Your task to perform on an android device: turn on translation in the chrome app Image 0: 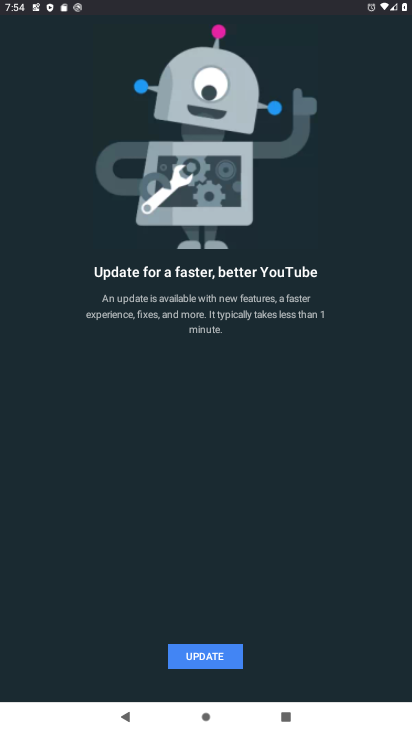
Step 0: press back button
Your task to perform on an android device: turn on translation in the chrome app Image 1: 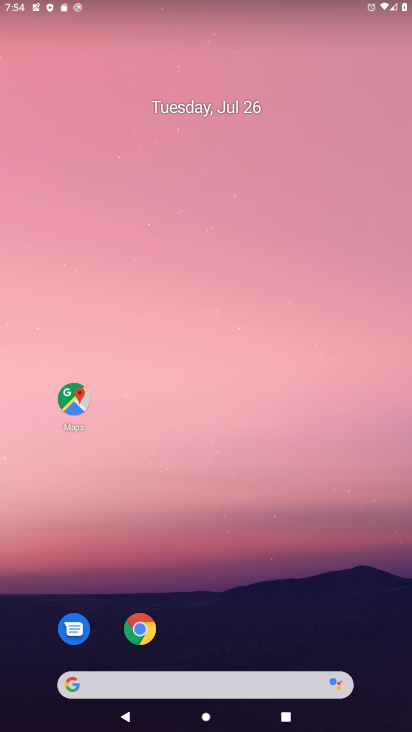
Step 1: click (138, 622)
Your task to perform on an android device: turn on translation in the chrome app Image 2: 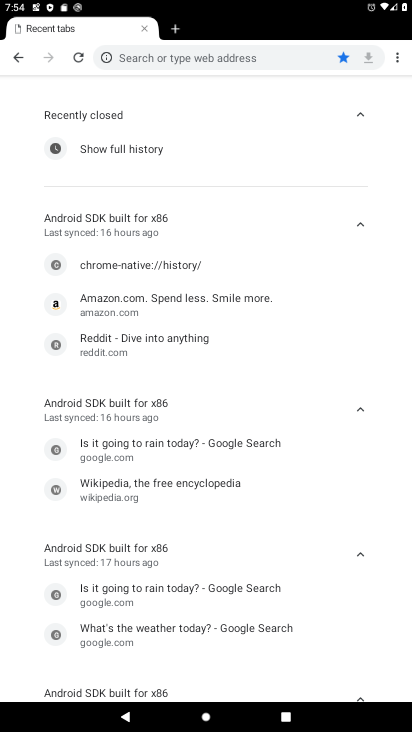
Step 2: click (393, 58)
Your task to perform on an android device: turn on translation in the chrome app Image 3: 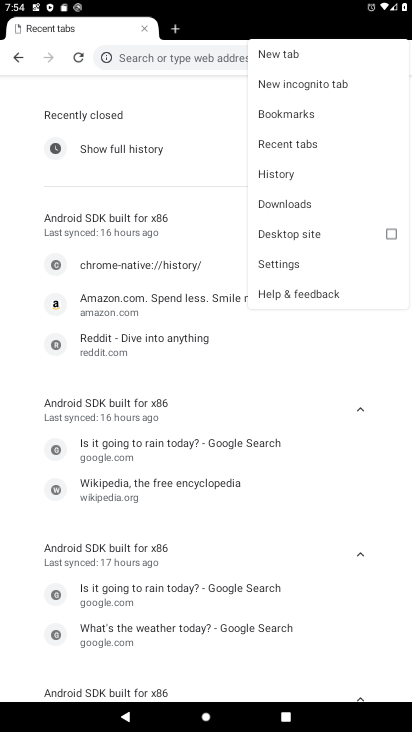
Step 3: click (294, 256)
Your task to perform on an android device: turn on translation in the chrome app Image 4: 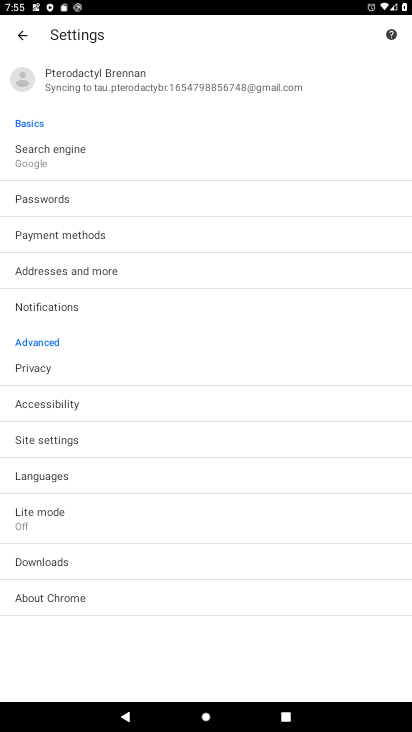
Step 4: click (81, 472)
Your task to perform on an android device: turn on translation in the chrome app Image 5: 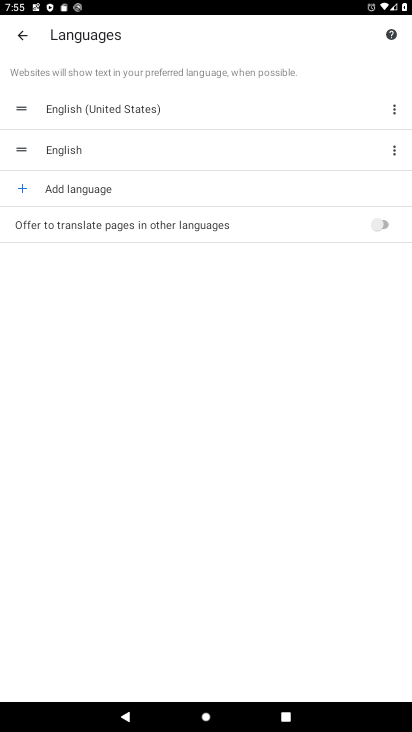
Step 5: click (367, 228)
Your task to perform on an android device: turn on translation in the chrome app Image 6: 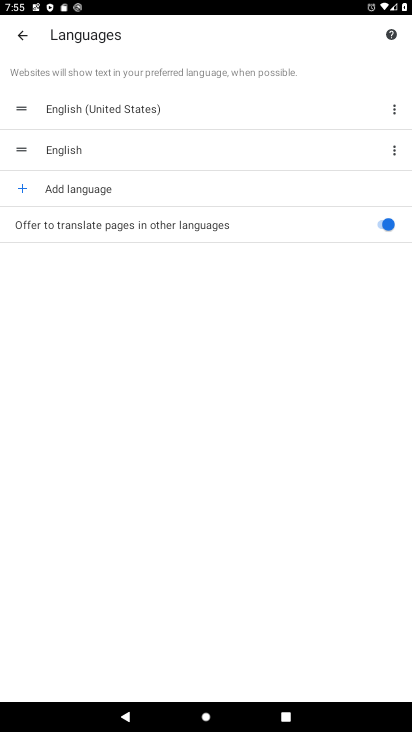
Step 6: task complete